Your task to perform on an android device: visit the assistant section in the google photos Image 0: 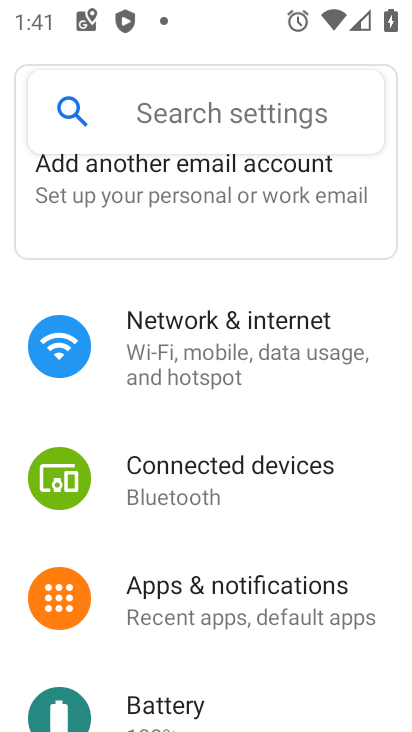
Step 0: press home button
Your task to perform on an android device: visit the assistant section in the google photos Image 1: 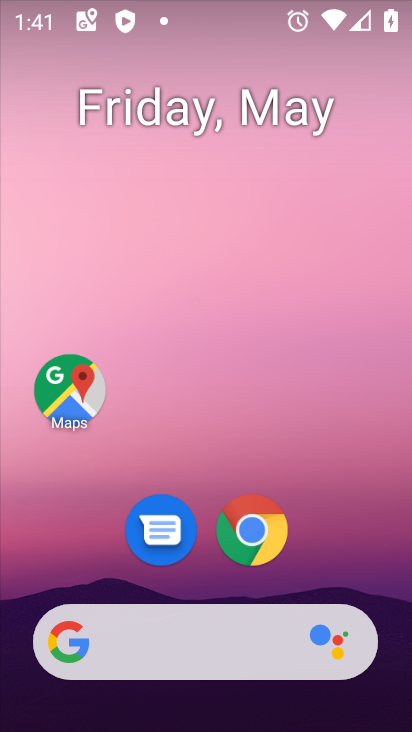
Step 1: drag from (347, 557) to (188, 12)
Your task to perform on an android device: visit the assistant section in the google photos Image 2: 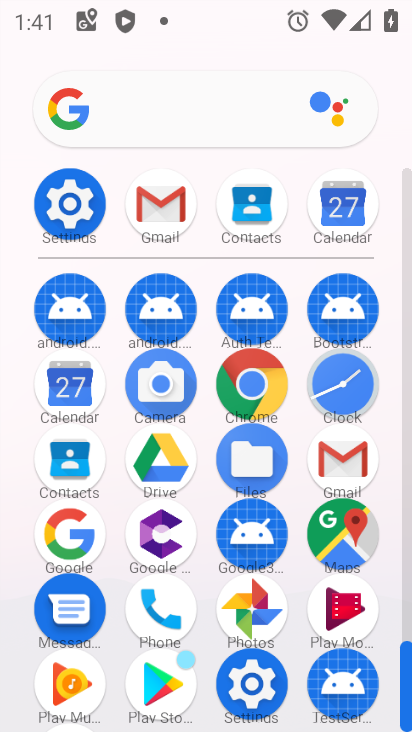
Step 2: click (258, 606)
Your task to perform on an android device: visit the assistant section in the google photos Image 3: 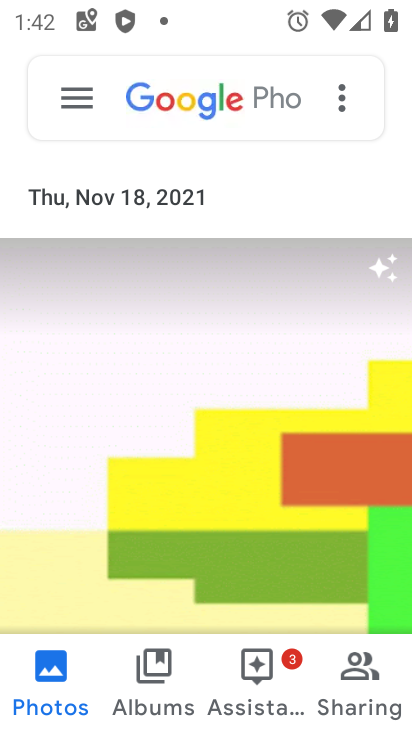
Step 3: click (249, 676)
Your task to perform on an android device: visit the assistant section in the google photos Image 4: 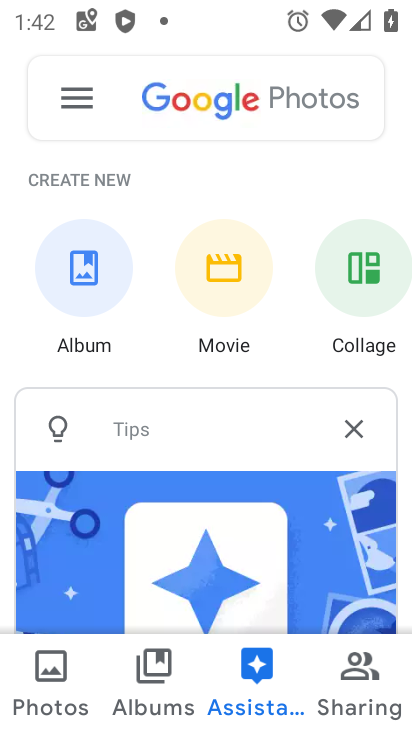
Step 4: task complete